Your task to perform on an android device: Go to Reddit.com Image 0: 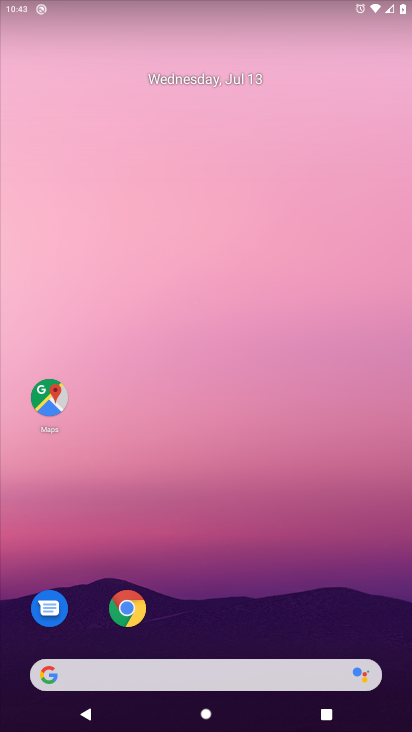
Step 0: click (110, 667)
Your task to perform on an android device: Go to Reddit.com Image 1: 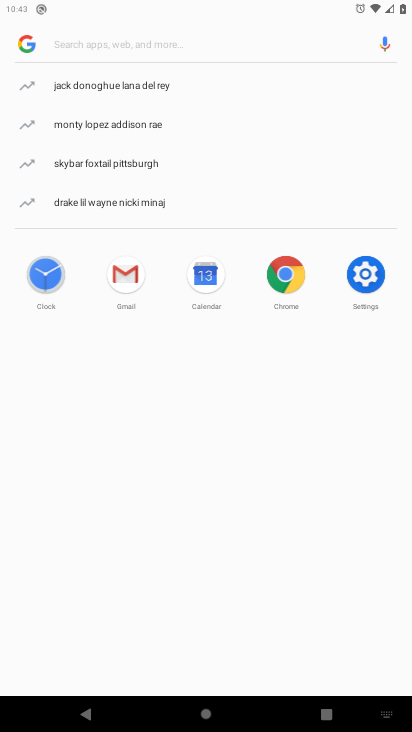
Step 1: type "Reddit.com"
Your task to perform on an android device: Go to Reddit.com Image 2: 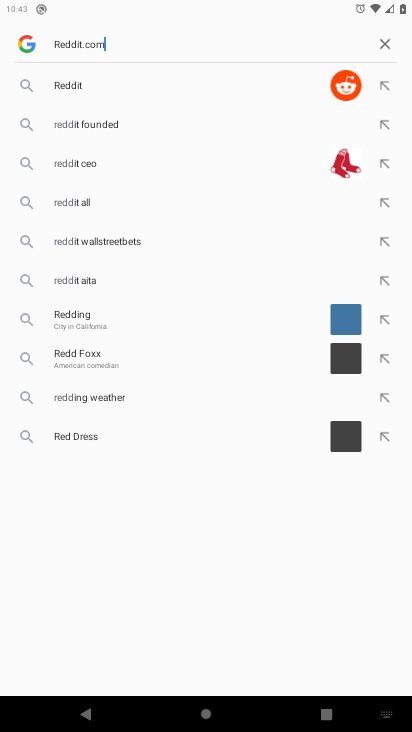
Step 2: type ""
Your task to perform on an android device: Go to Reddit.com Image 3: 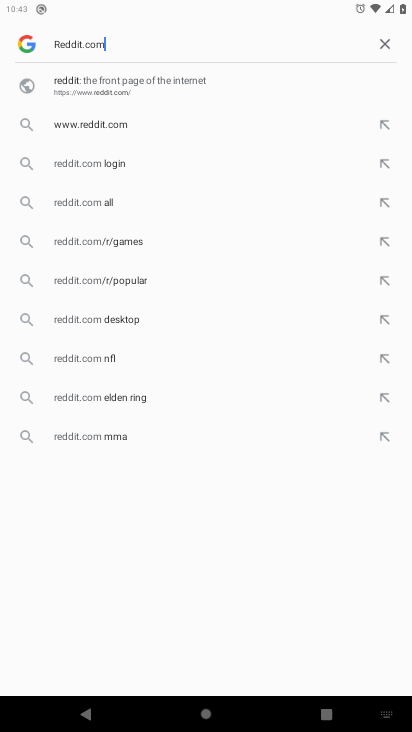
Step 3: type ""
Your task to perform on an android device: Go to Reddit.com Image 4: 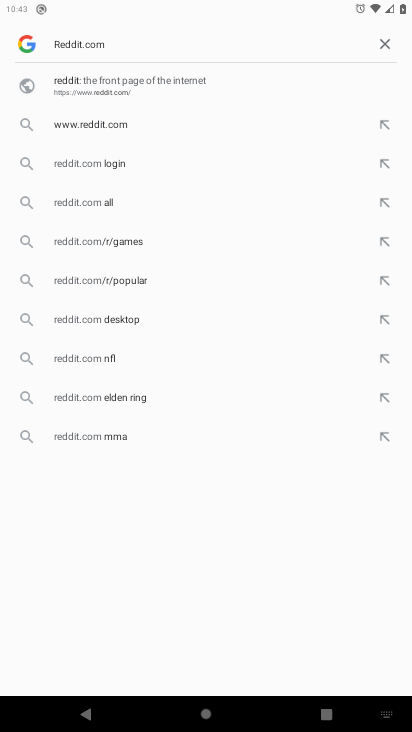
Step 4: type ""
Your task to perform on an android device: Go to Reddit.com Image 5: 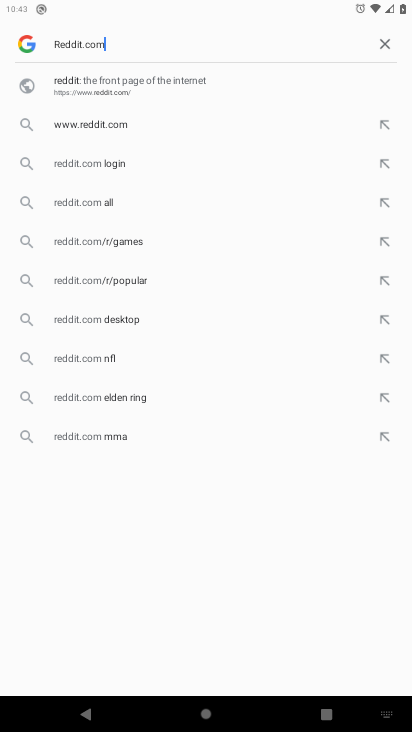
Step 5: type ""
Your task to perform on an android device: Go to Reddit.com Image 6: 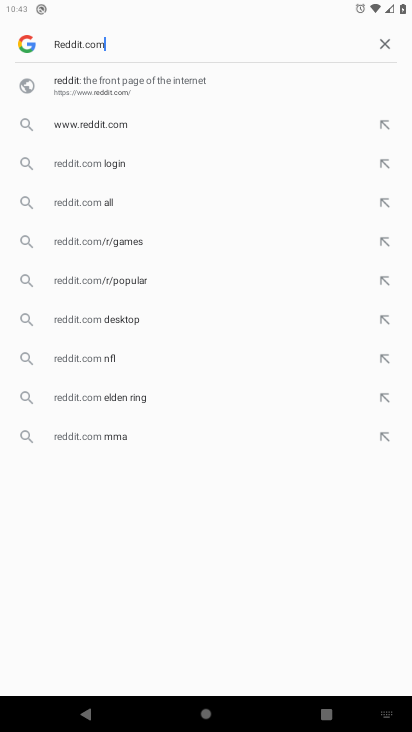
Step 6: task complete